Your task to perform on an android device: Open Google Image 0: 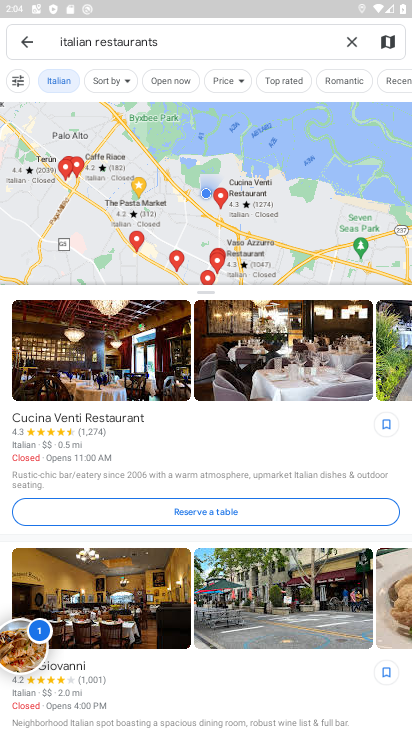
Step 0: press home button
Your task to perform on an android device: Open Google Image 1: 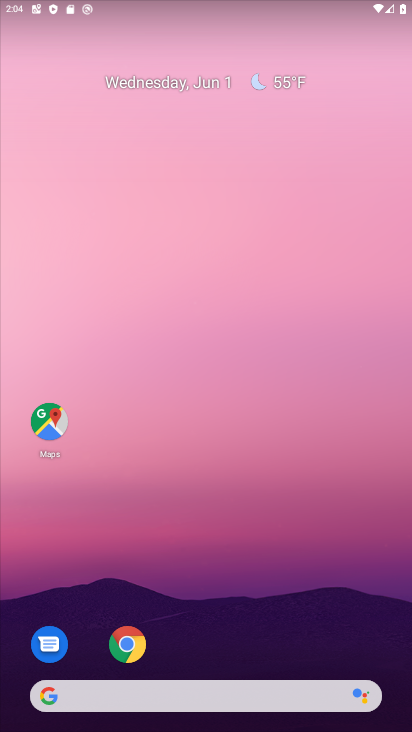
Step 1: drag from (196, 588) to (182, 218)
Your task to perform on an android device: Open Google Image 2: 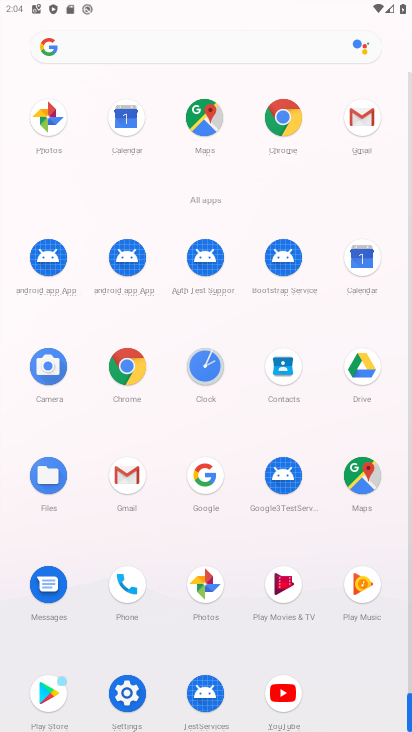
Step 2: click (204, 476)
Your task to perform on an android device: Open Google Image 3: 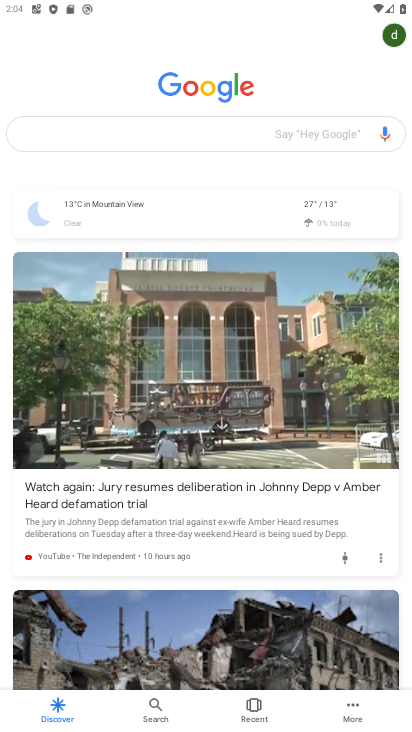
Step 3: task complete